Your task to perform on an android device: delete the emails in spam in the gmail app Image 0: 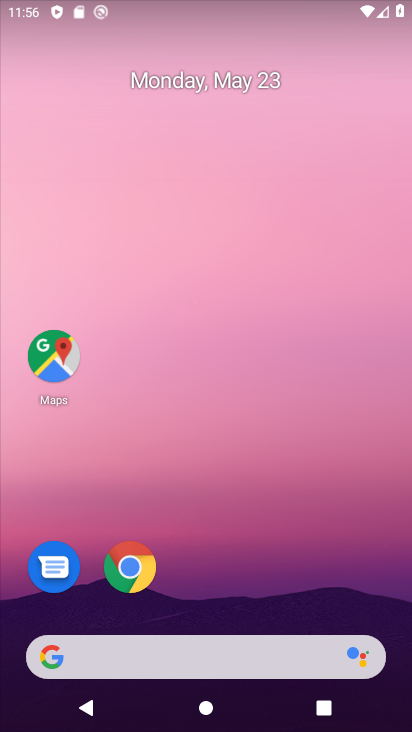
Step 0: drag from (352, 596) to (308, 247)
Your task to perform on an android device: delete the emails in spam in the gmail app Image 1: 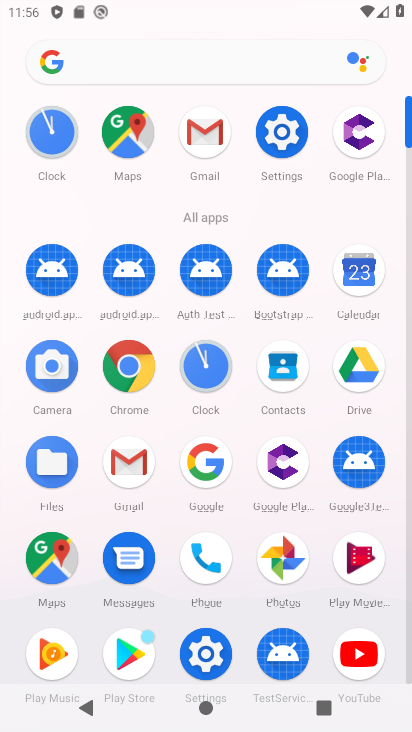
Step 1: click (409, 622)
Your task to perform on an android device: delete the emails in spam in the gmail app Image 2: 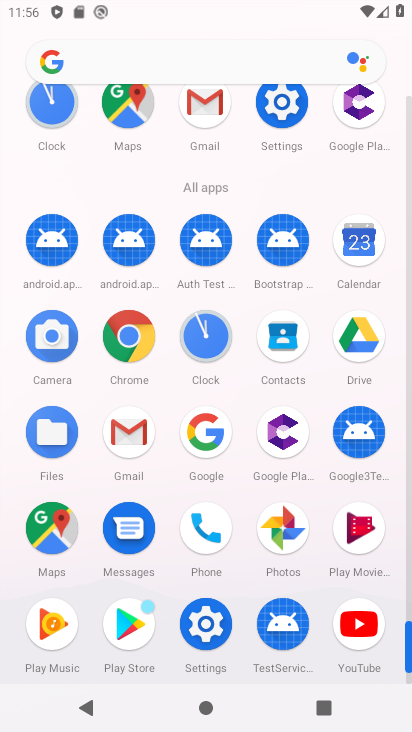
Step 2: click (144, 433)
Your task to perform on an android device: delete the emails in spam in the gmail app Image 3: 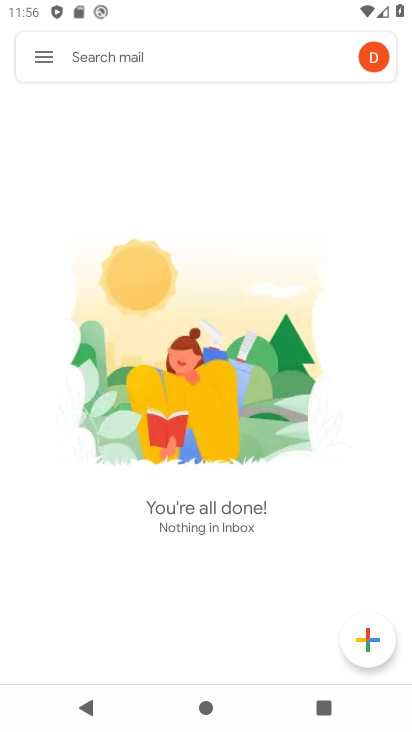
Step 3: click (46, 61)
Your task to perform on an android device: delete the emails in spam in the gmail app Image 4: 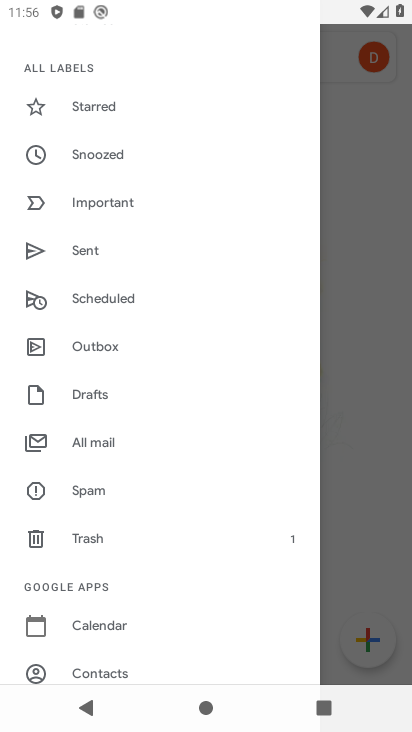
Step 4: drag from (166, 643) to (156, 148)
Your task to perform on an android device: delete the emails in spam in the gmail app Image 5: 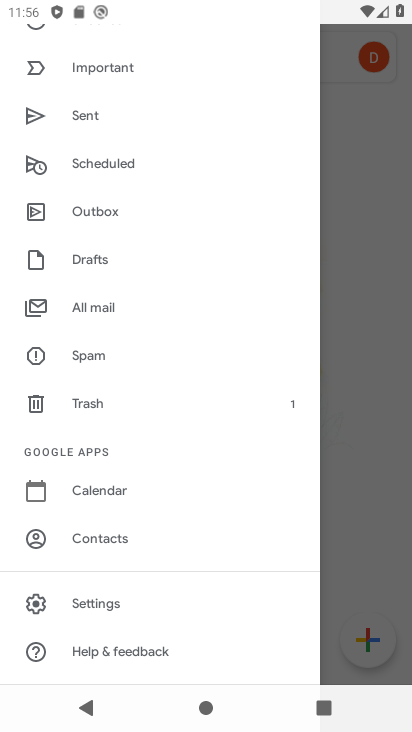
Step 5: click (146, 355)
Your task to perform on an android device: delete the emails in spam in the gmail app Image 6: 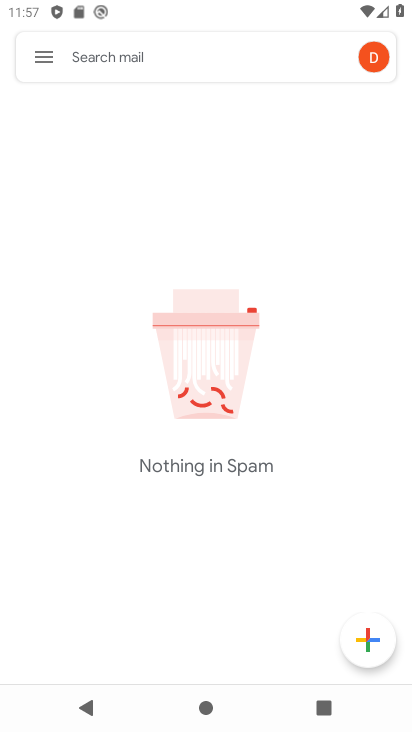
Step 6: task complete